Your task to perform on an android device: Go to wifi settings Image 0: 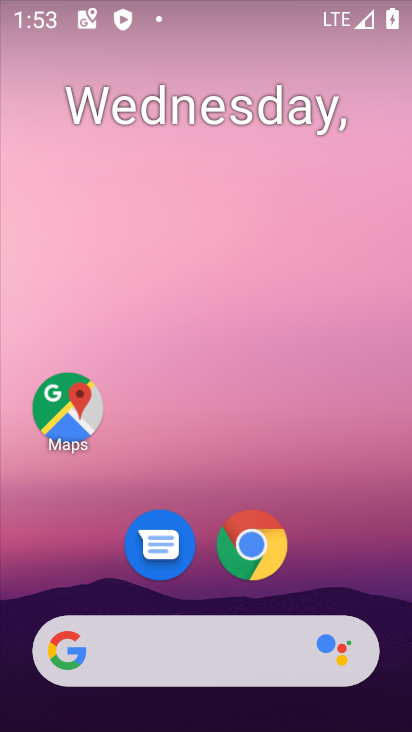
Step 0: drag from (332, 539) to (281, 187)
Your task to perform on an android device: Go to wifi settings Image 1: 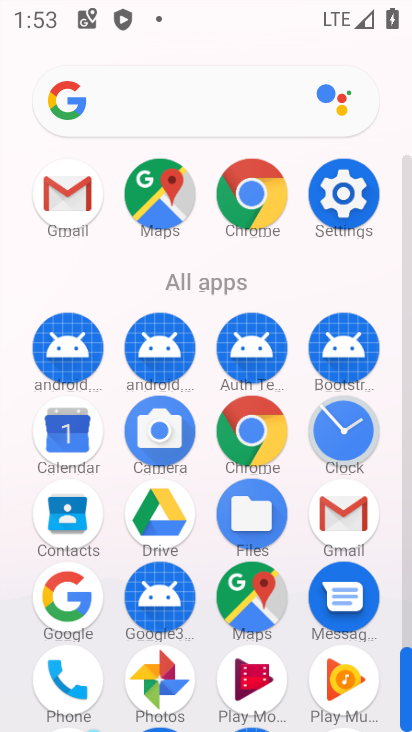
Step 1: click (347, 202)
Your task to perform on an android device: Go to wifi settings Image 2: 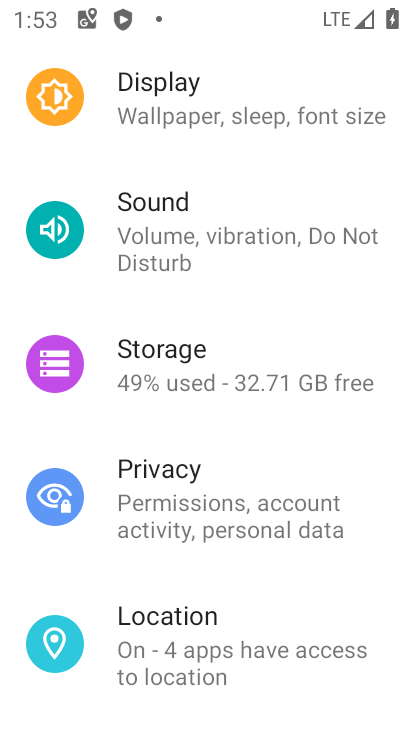
Step 2: drag from (242, 532) to (292, 121)
Your task to perform on an android device: Go to wifi settings Image 3: 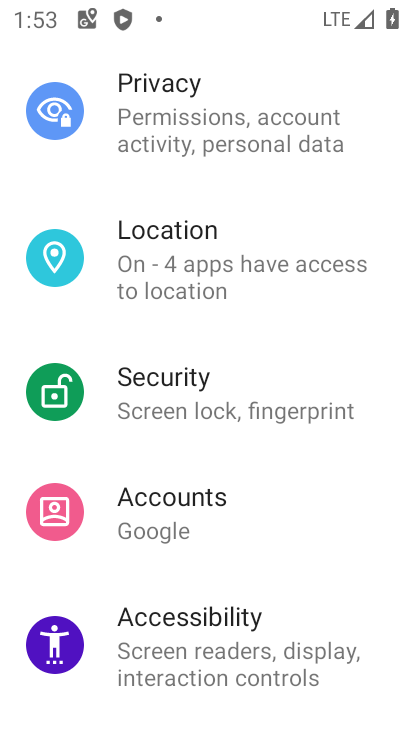
Step 3: drag from (236, 494) to (260, 717)
Your task to perform on an android device: Go to wifi settings Image 4: 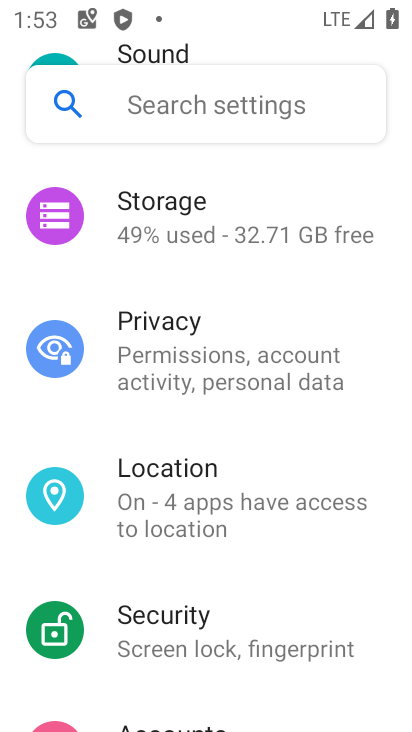
Step 4: drag from (291, 229) to (294, 643)
Your task to perform on an android device: Go to wifi settings Image 5: 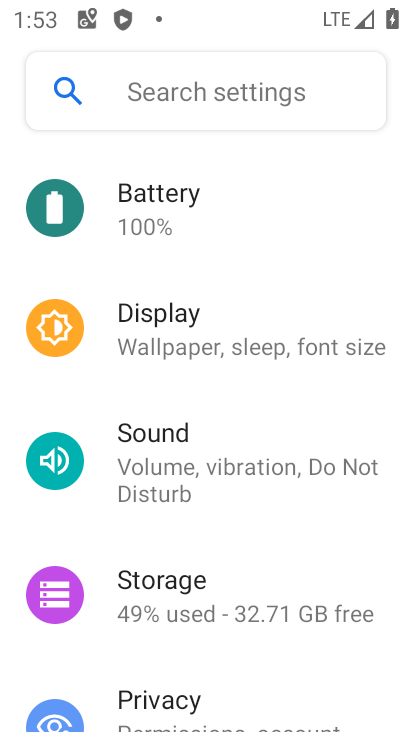
Step 5: drag from (264, 238) to (279, 592)
Your task to perform on an android device: Go to wifi settings Image 6: 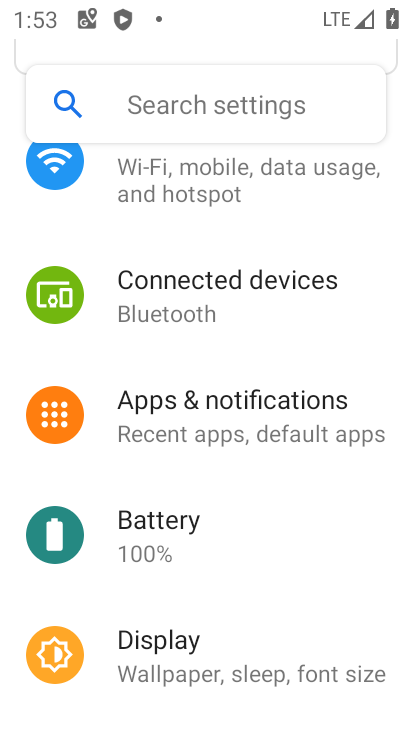
Step 6: click (211, 207)
Your task to perform on an android device: Go to wifi settings Image 7: 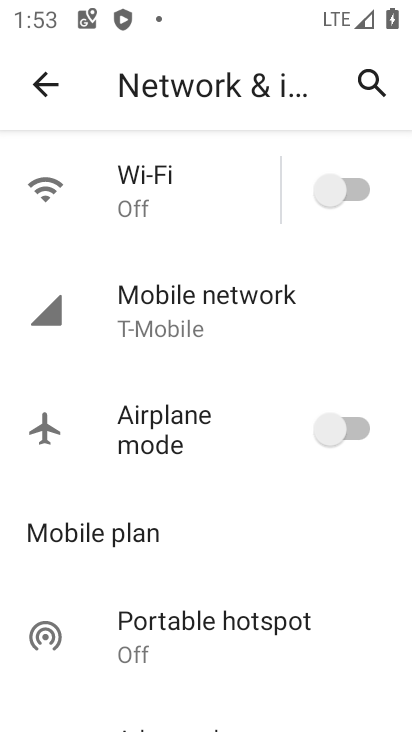
Step 7: click (158, 205)
Your task to perform on an android device: Go to wifi settings Image 8: 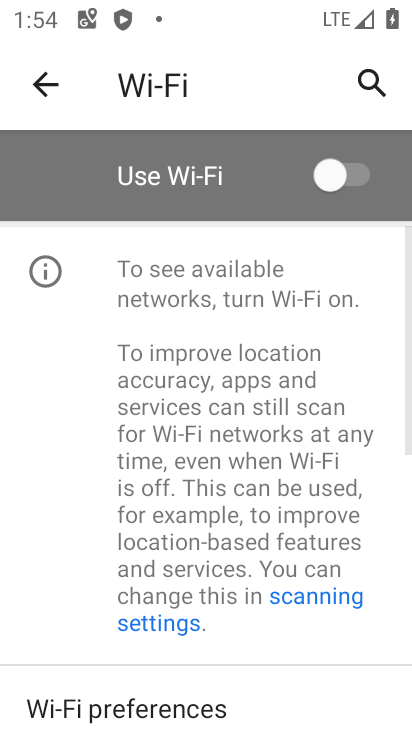
Step 8: click (344, 185)
Your task to perform on an android device: Go to wifi settings Image 9: 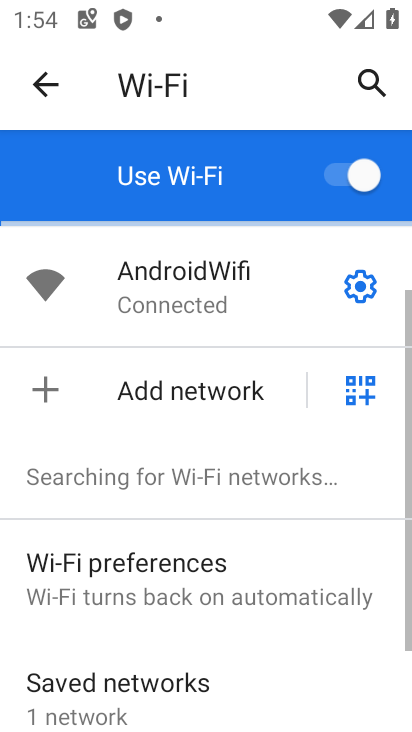
Step 9: click (363, 293)
Your task to perform on an android device: Go to wifi settings Image 10: 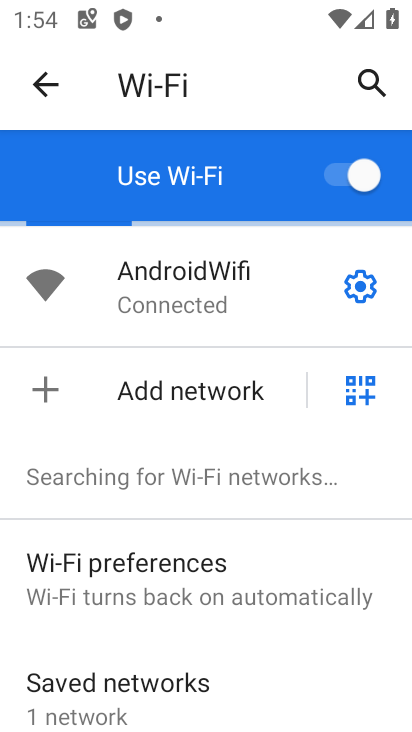
Step 10: click (363, 292)
Your task to perform on an android device: Go to wifi settings Image 11: 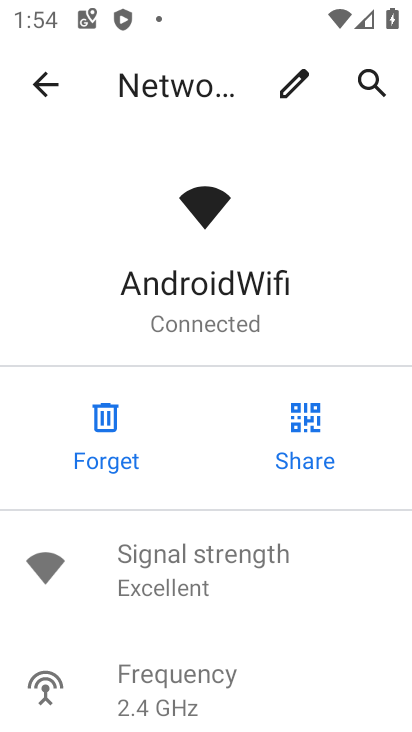
Step 11: task complete